Your task to perform on an android device: change text size in settings app Image 0: 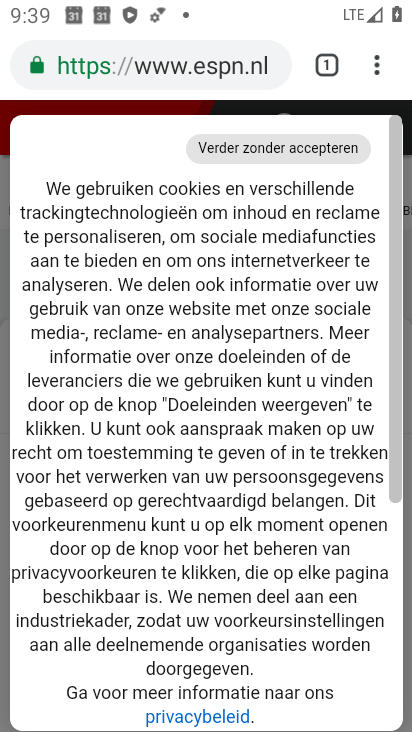
Step 0: press home button
Your task to perform on an android device: change text size in settings app Image 1: 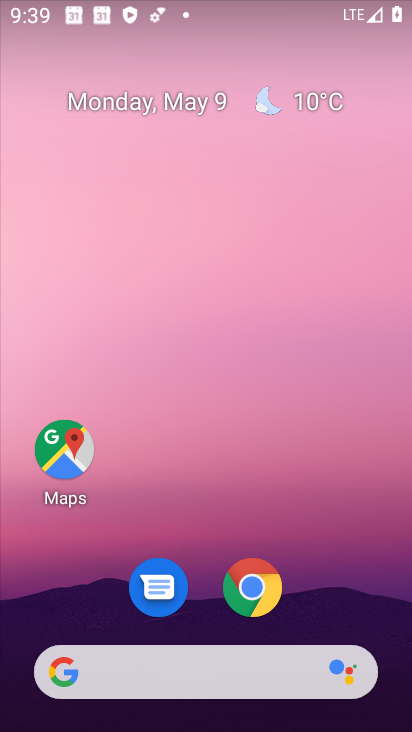
Step 1: drag from (248, 481) to (214, 18)
Your task to perform on an android device: change text size in settings app Image 2: 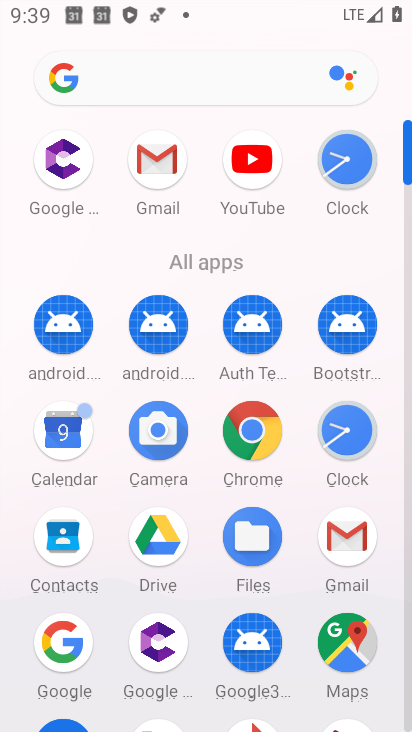
Step 2: drag from (204, 604) to (189, 396)
Your task to perform on an android device: change text size in settings app Image 3: 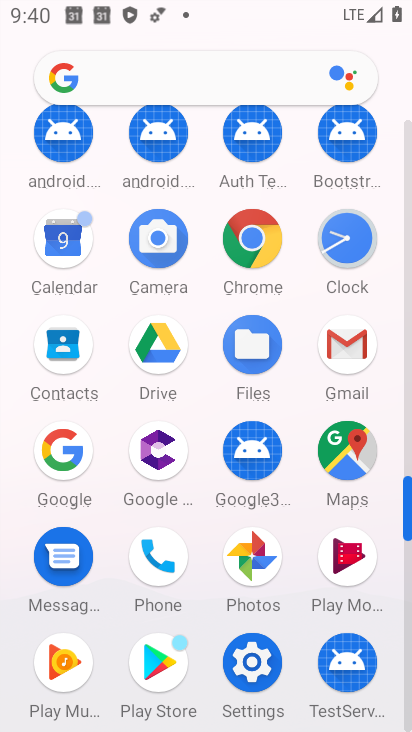
Step 3: click (256, 659)
Your task to perform on an android device: change text size in settings app Image 4: 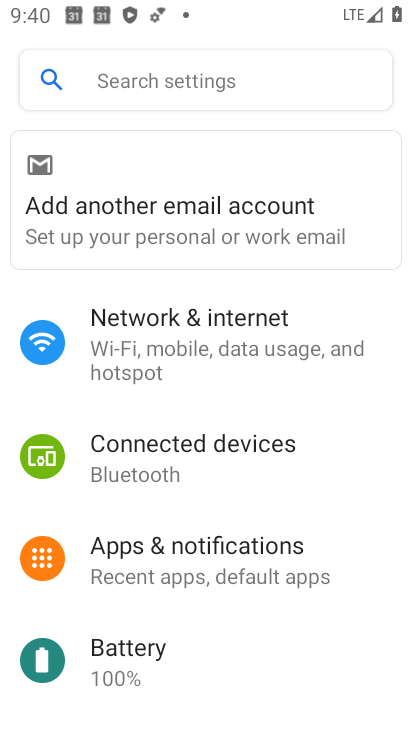
Step 4: drag from (223, 654) to (196, 399)
Your task to perform on an android device: change text size in settings app Image 5: 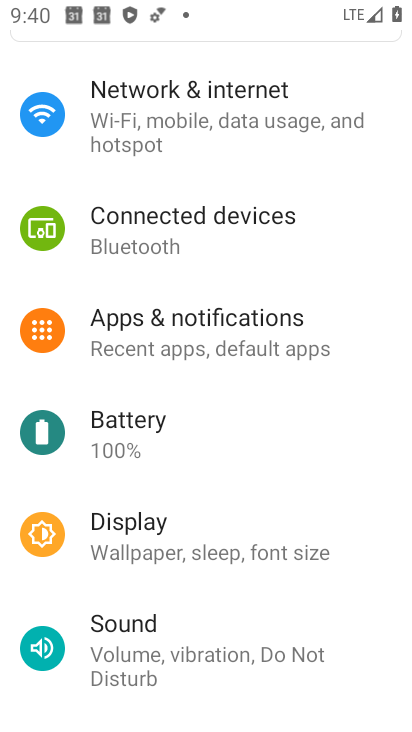
Step 5: click (180, 574)
Your task to perform on an android device: change text size in settings app Image 6: 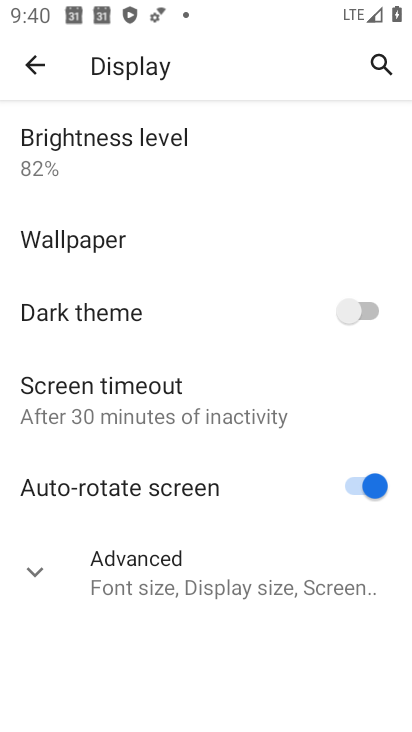
Step 6: click (160, 556)
Your task to perform on an android device: change text size in settings app Image 7: 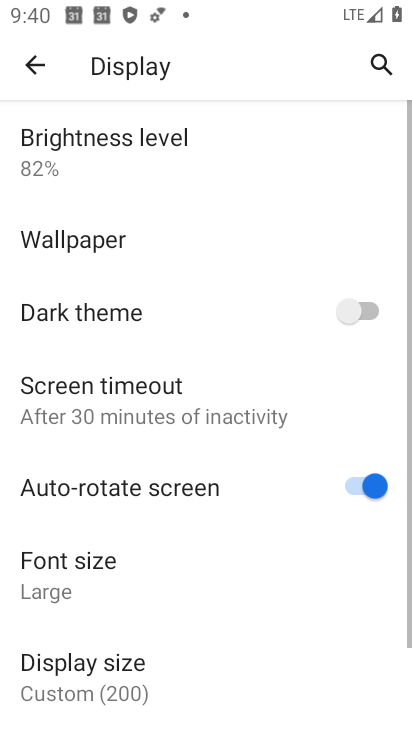
Step 7: click (160, 565)
Your task to perform on an android device: change text size in settings app Image 8: 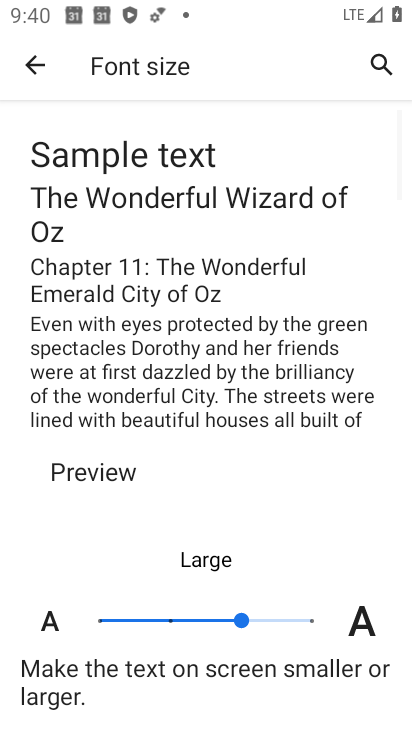
Step 8: task complete